Your task to perform on an android device: make emails show in primary in the gmail app Image 0: 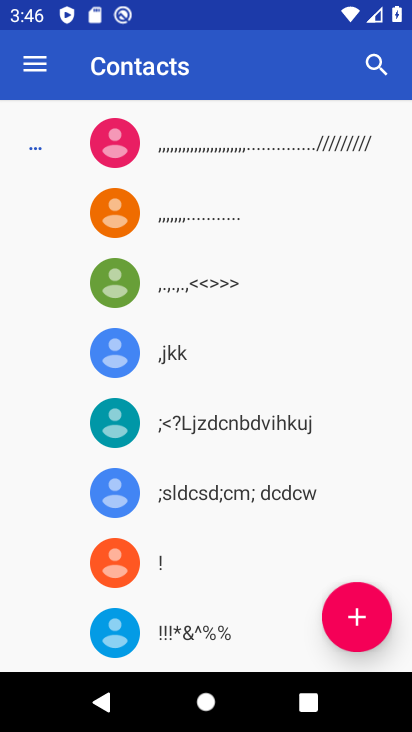
Step 0: press home button
Your task to perform on an android device: make emails show in primary in the gmail app Image 1: 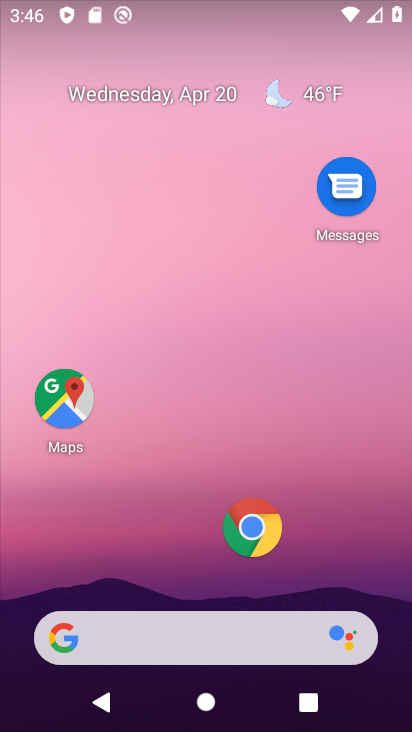
Step 1: drag from (197, 644) to (245, 265)
Your task to perform on an android device: make emails show in primary in the gmail app Image 2: 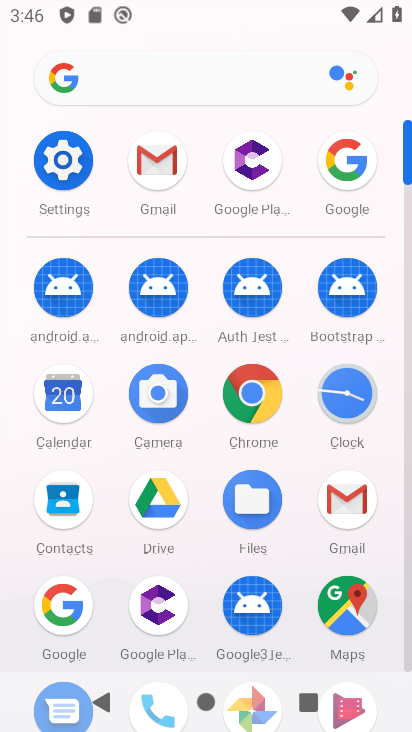
Step 2: click (165, 171)
Your task to perform on an android device: make emails show in primary in the gmail app Image 3: 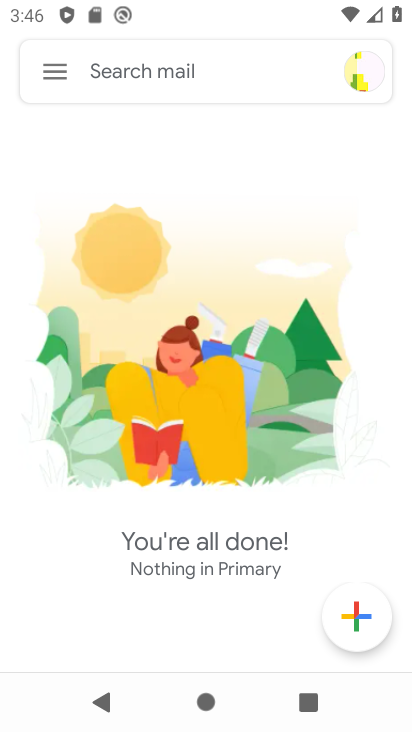
Step 3: click (42, 72)
Your task to perform on an android device: make emails show in primary in the gmail app Image 4: 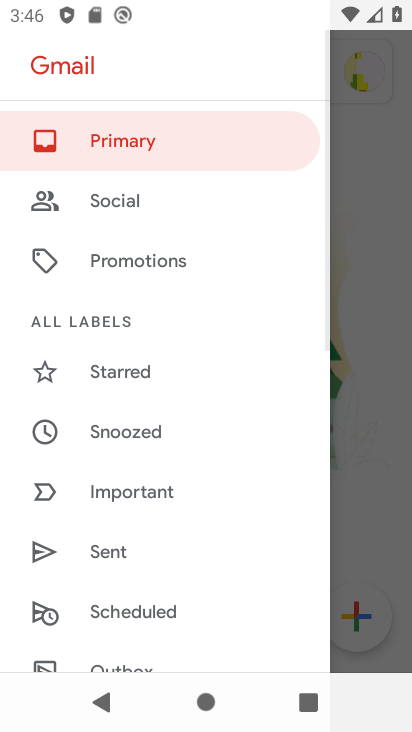
Step 4: drag from (141, 621) to (244, 125)
Your task to perform on an android device: make emails show in primary in the gmail app Image 5: 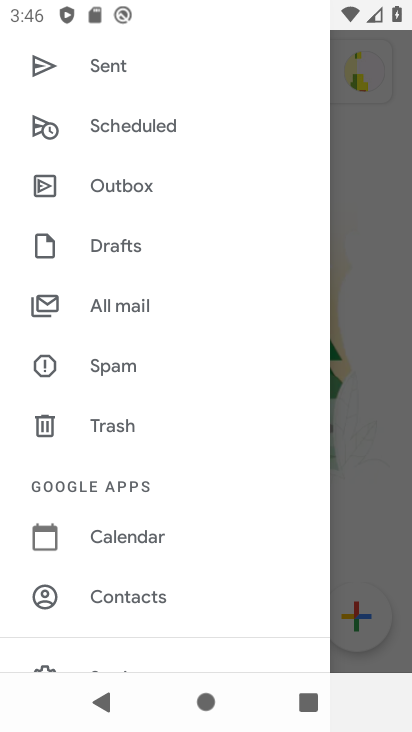
Step 5: drag from (189, 551) to (283, 157)
Your task to perform on an android device: make emails show in primary in the gmail app Image 6: 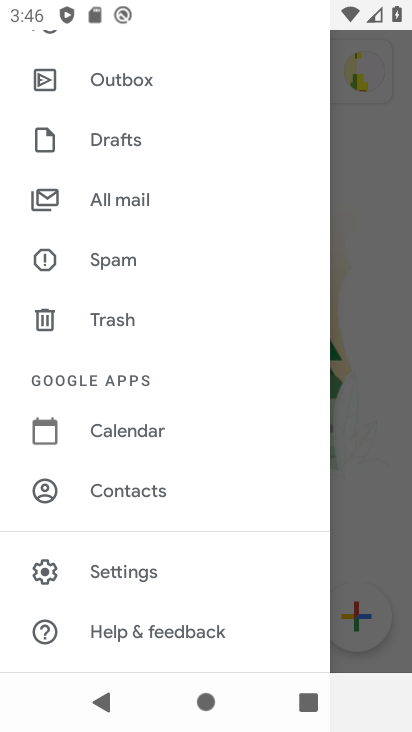
Step 6: click (115, 573)
Your task to perform on an android device: make emails show in primary in the gmail app Image 7: 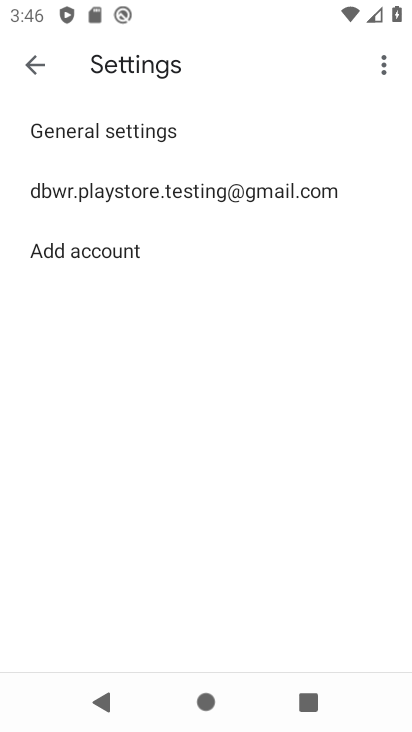
Step 7: click (199, 190)
Your task to perform on an android device: make emails show in primary in the gmail app Image 8: 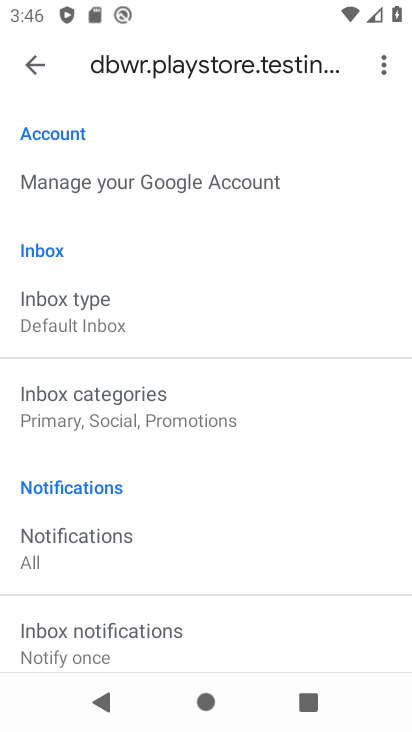
Step 8: drag from (187, 556) to (352, 175)
Your task to perform on an android device: make emails show in primary in the gmail app Image 9: 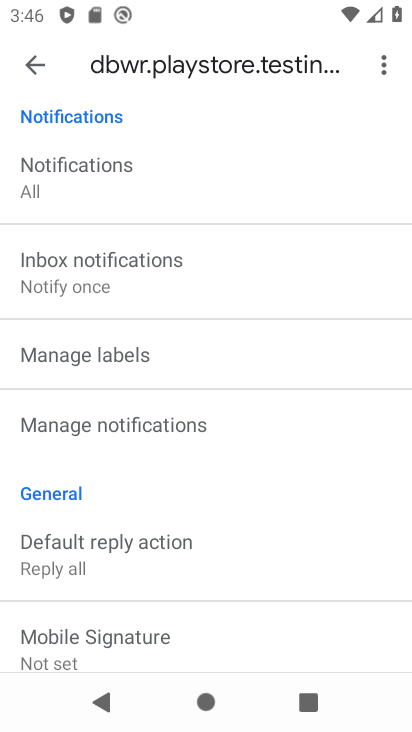
Step 9: drag from (205, 495) to (180, 571)
Your task to perform on an android device: make emails show in primary in the gmail app Image 10: 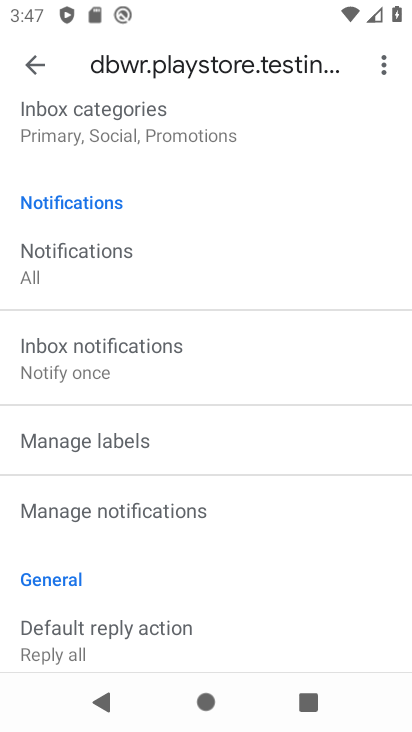
Step 10: click (131, 134)
Your task to perform on an android device: make emails show in primary in the gmail app Image 11: 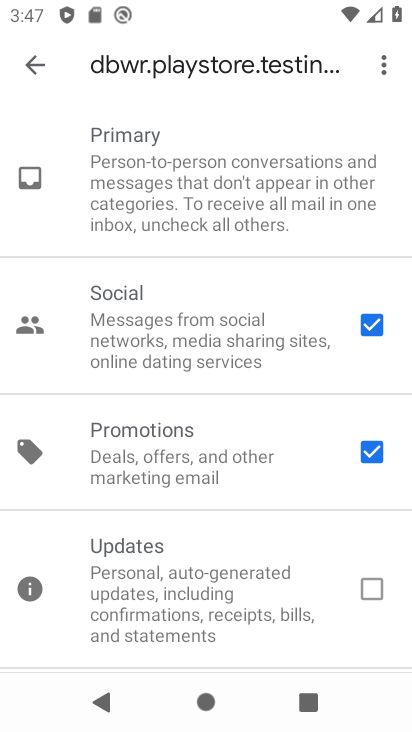
Step 11: click (365, 321)
Your task to perform on an android device: make emails show in primary in the gmail app Image 12: 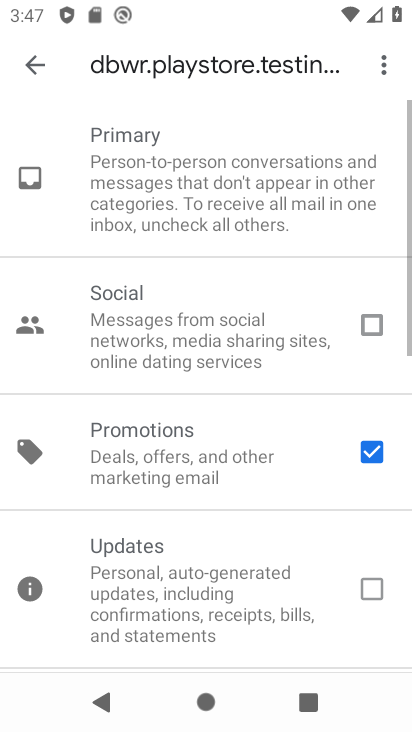
Step 12: click (372, 451)
Your task to perform on an android device: make emails show in primary in the gmail app Image 13: 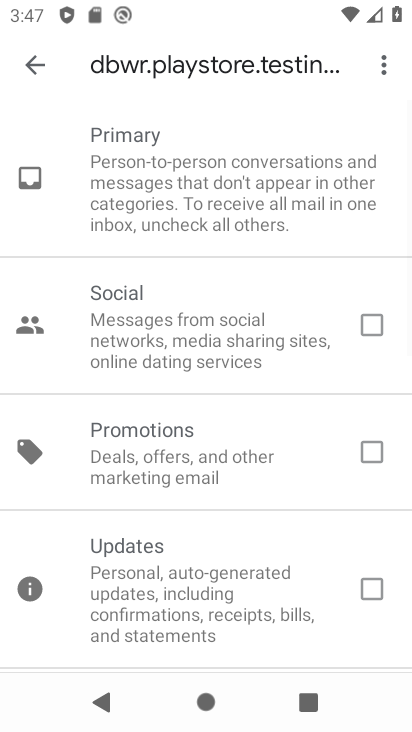
Step 13: click (39, 61)
Your task to perform on an android device: make emails show in primary in the gmail app Image 14: 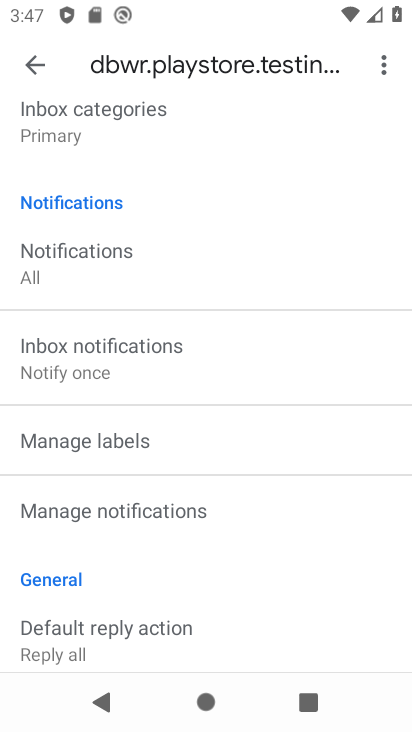
Step 14: task complete